Your task to perform on an android device: Open display settings Image 0: 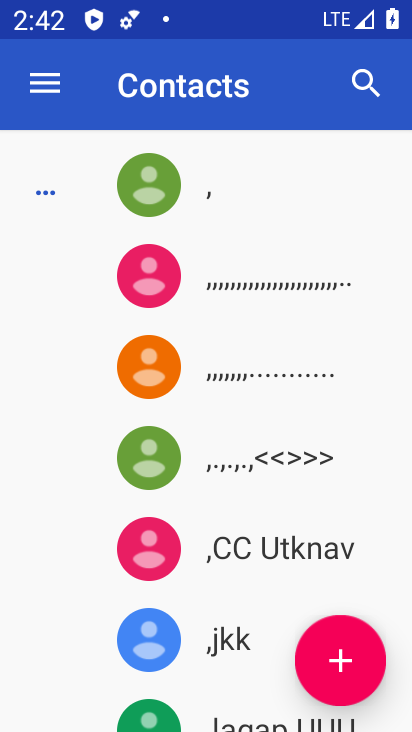
Step 0: press home button
Your task to perform on an android device: Open display settings Image 1: 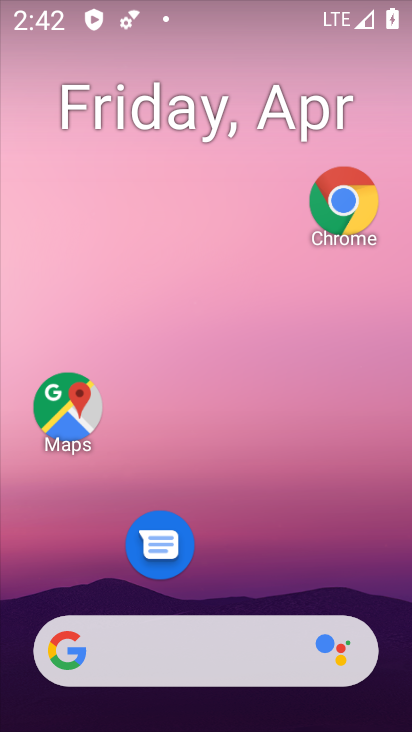
Step 1: drag from (256, 563) to (349, 59)
Your task to perform on an android device: Open display settings Image 2: 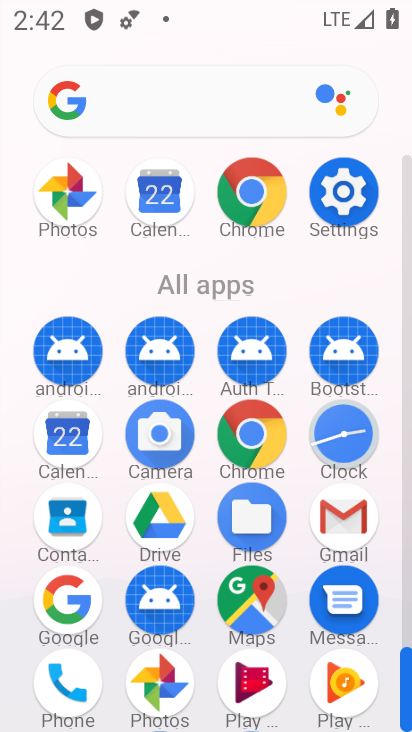
Step 2: click (346, 217)
Your task to perform on an android device: Open display settings Image 3: 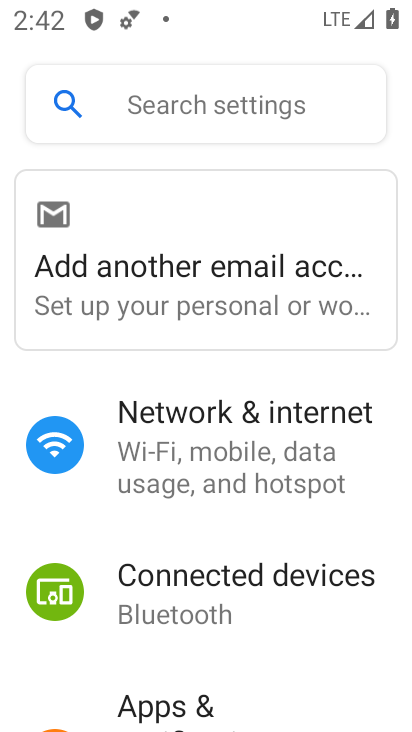
Step 3: drag from (218, 605) to (263, 373)
Your task to perform on an android device: Open display settings Image 4: 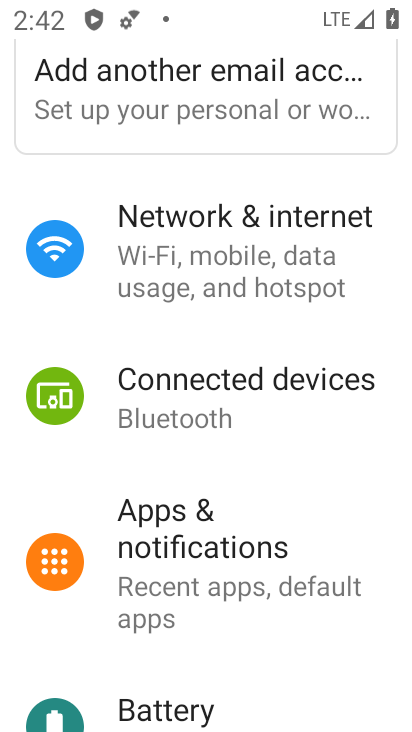
Step 4: drag from (199, 577) to (252, 322)
Your task to perform on an android device: Open display settings Image 5: 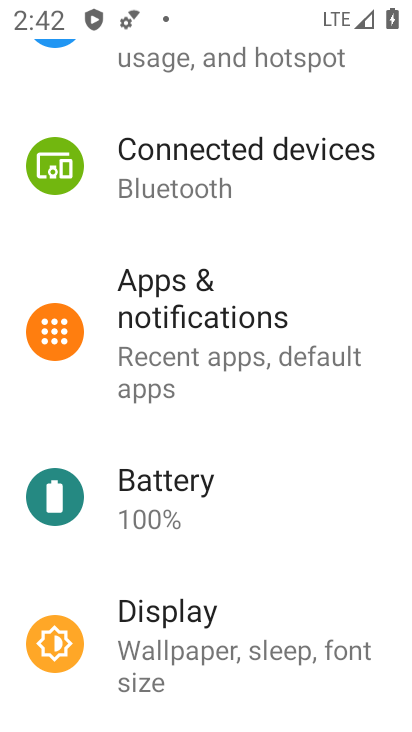
Step 5: click (173, 623)
Your task to perform on an android device: Open display settings Image 6: 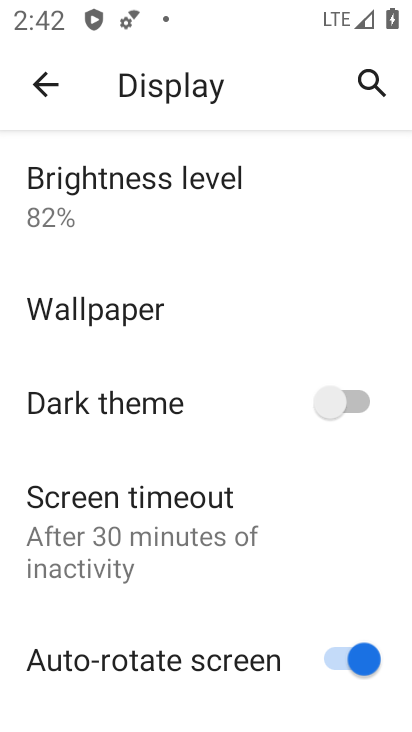
Step 6: task complete